Your task to perform on an android device: star an email in the gmail app Image 0: 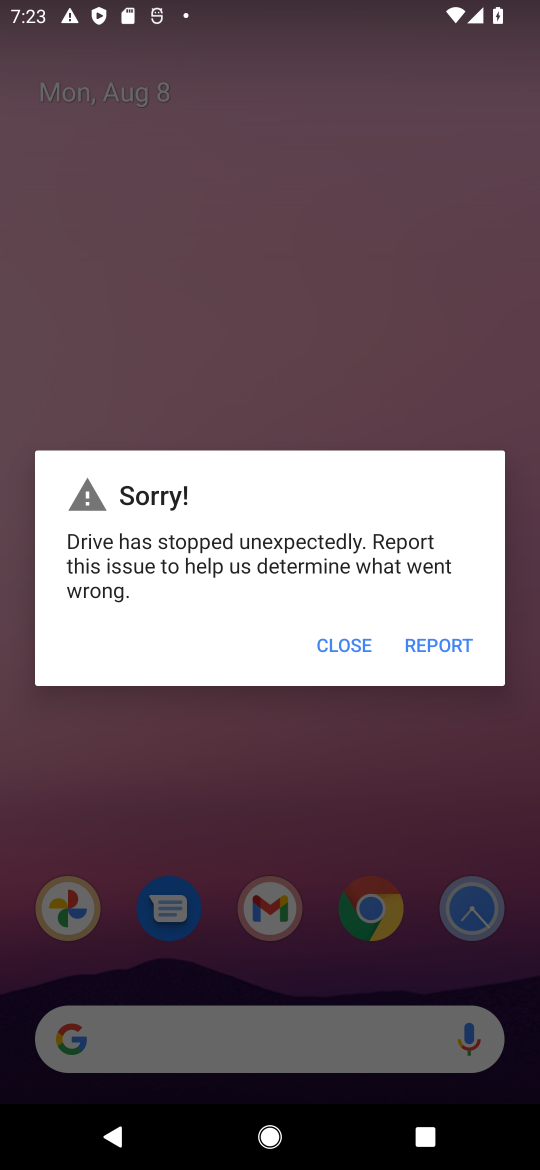
Step 0: click (342, 655)
Your task to perform on an android device: star an email in the gmail app Image 1: 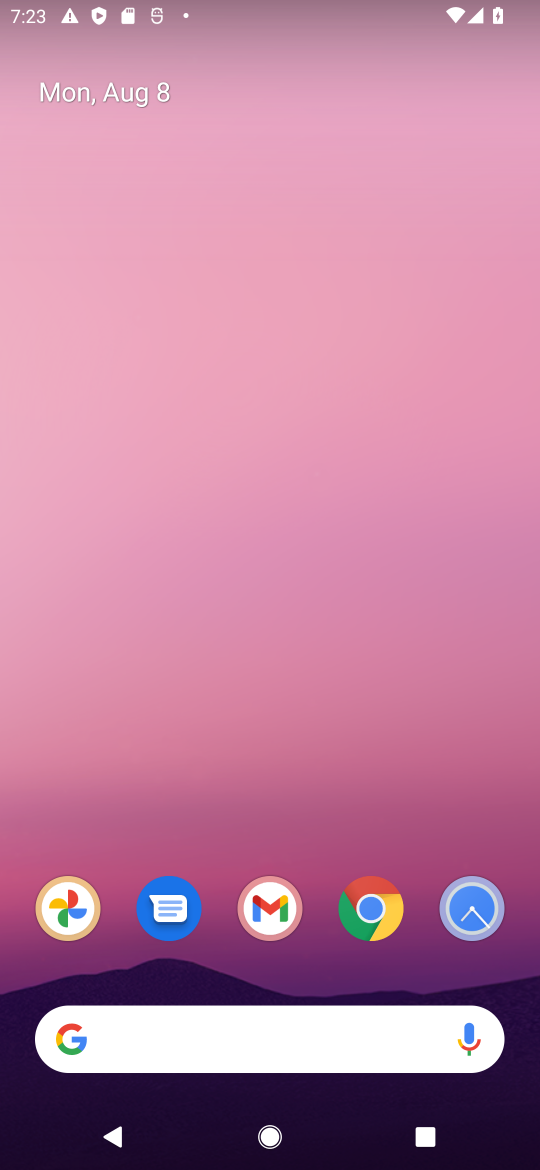
Step 1: click (286, 888)
Your task to perform on an android device: star an email in the gmail app Image 2: 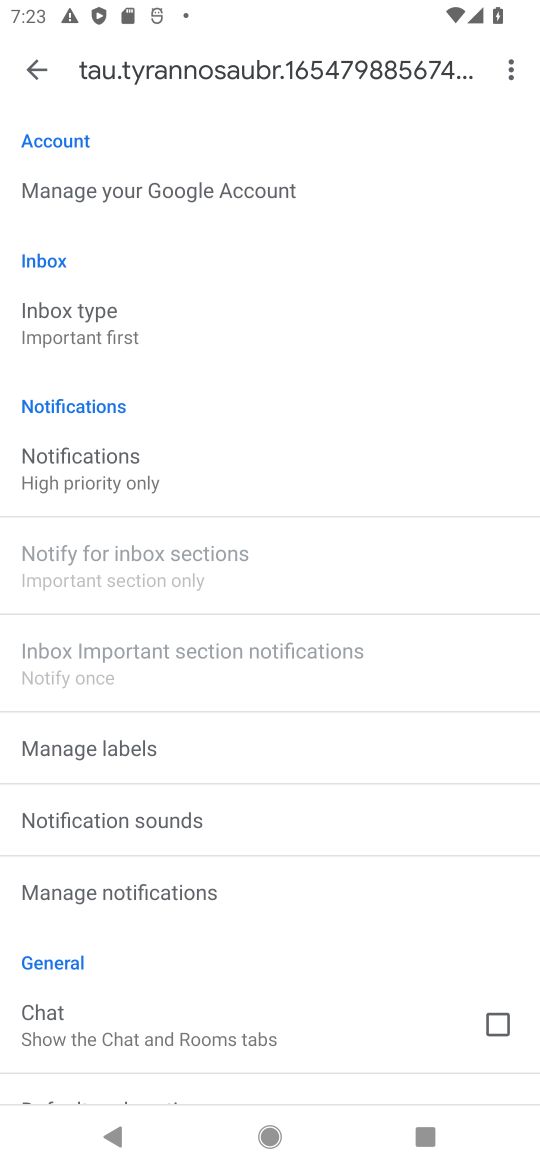
Step 2: click (42, 74)
Your task to perform on an android device: star an email in the gmail app Image 3: 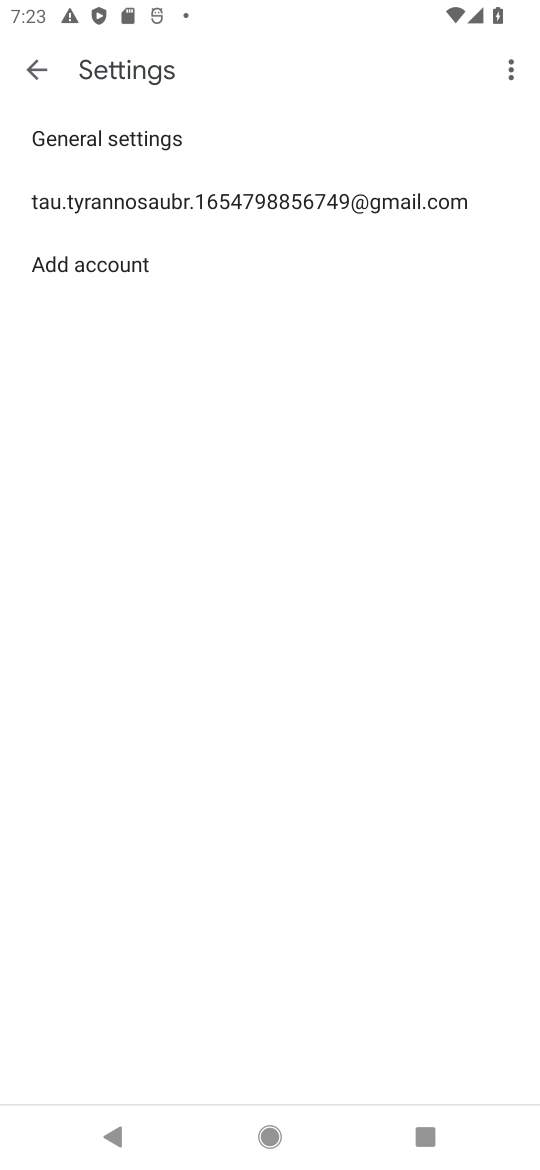
Step 3: click (42, 74)
Your task to perform on an android device: star an email in the gmail app Image 4: 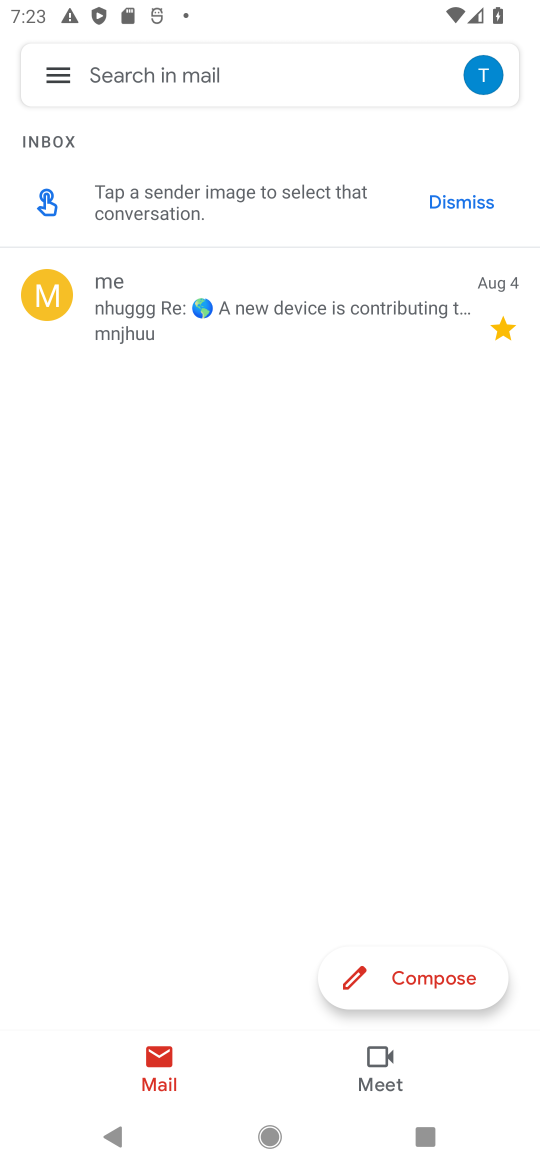
Step 4: task complete